Your task to perform on an android device: change keyboard looks Image 0: 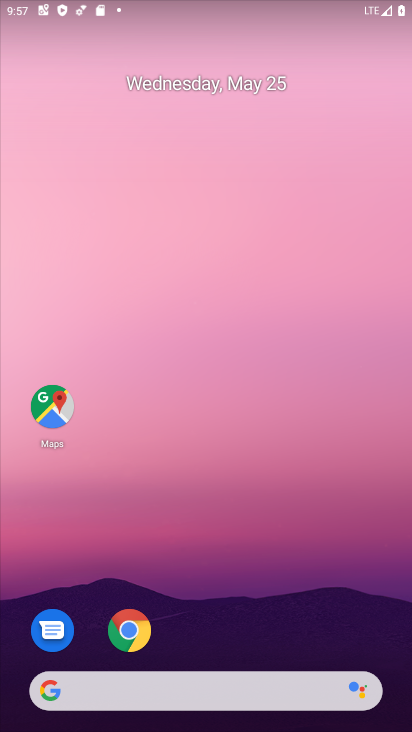
Step 0: drag from (185, 566) to (255, 169)
Your task to perform on an android device: change keyboard looks Image 1: 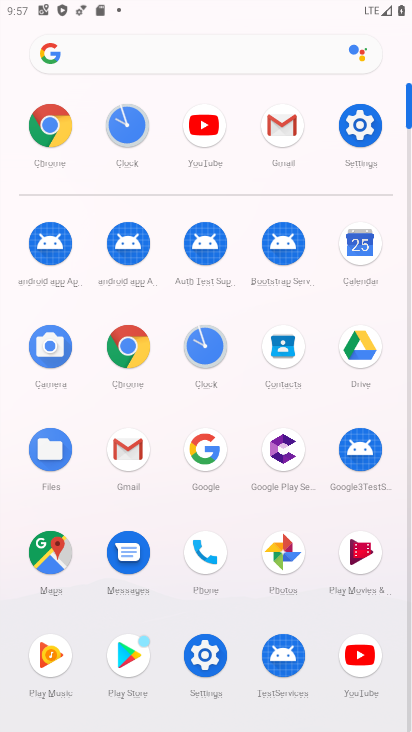
Step 1: click (353, 132)
Your task to perform on an android device: change keyboard looks Image 2: 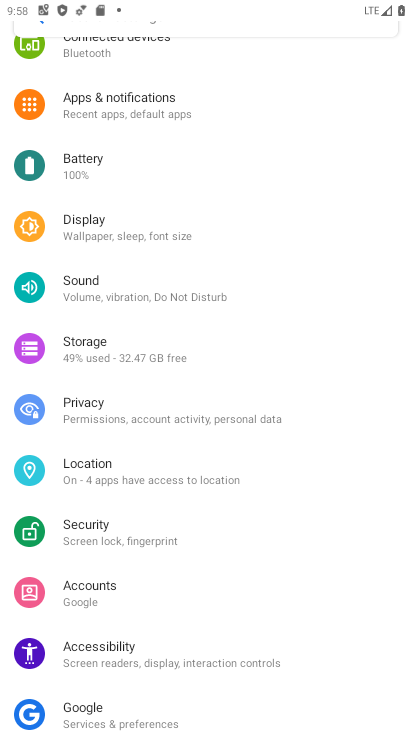
Step 2: drag from (150, 620) to (272, 58)
Your task to perform on an android device: change keyboard looks Image 3: 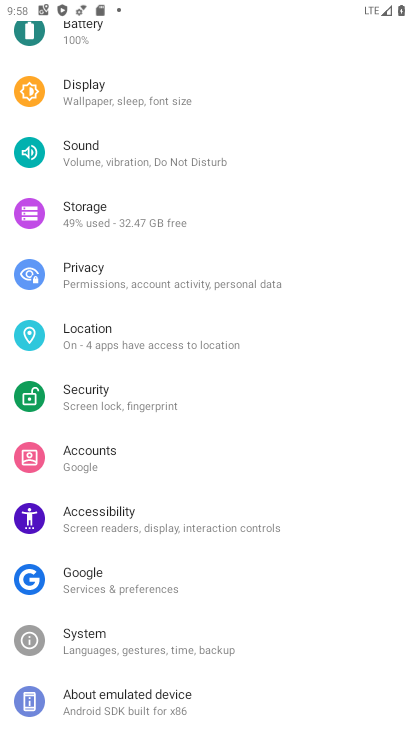
Step 3: click (110, 631)
Your task to perform on an android device: change keyboard looks Image 4: 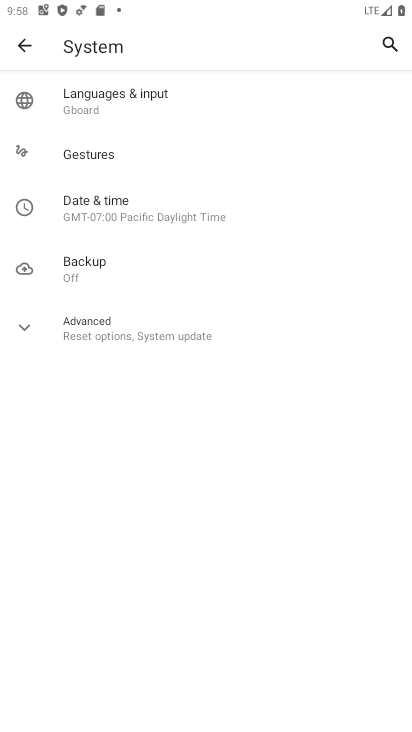
Step 4: click (118, 95)
Your task to perform on an android device: change keyboard looks Image 5: 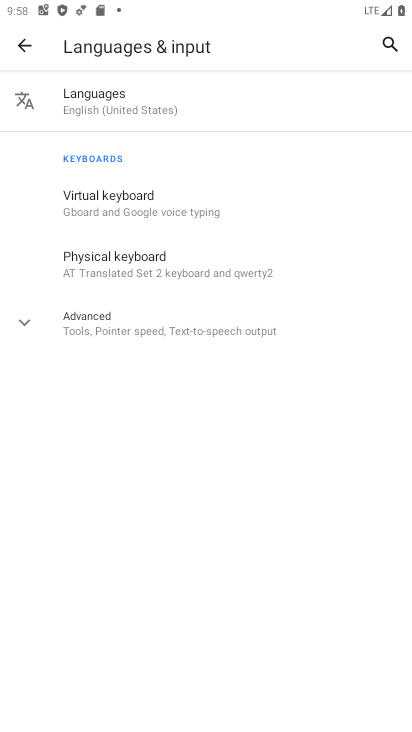
Step 5: click (99, 203)
Your task to perform on an android device: change keyboard looks Image 6: 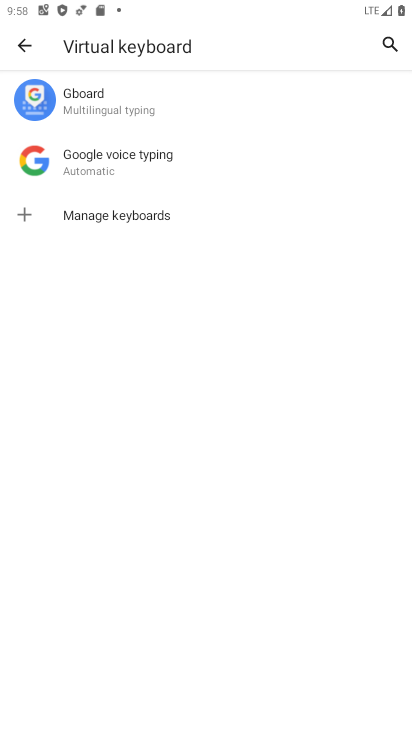
Step 6: click (108, 100)
Your task to perform on an android device: change keyboard looks Image 7: 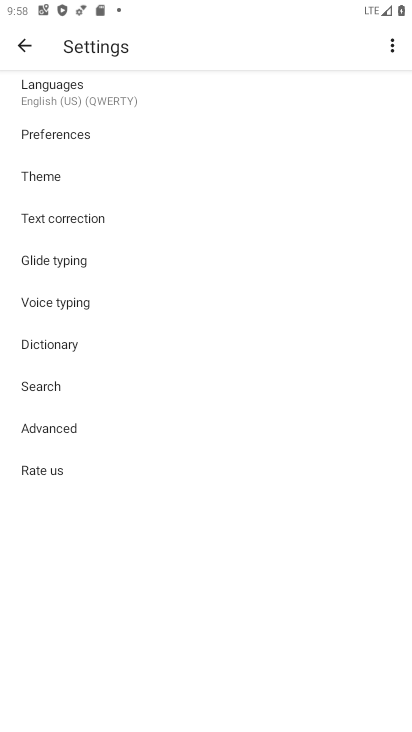
Step 7: click (47, 173)
Your task to perform on an android device: change keyboard looks Image 8: 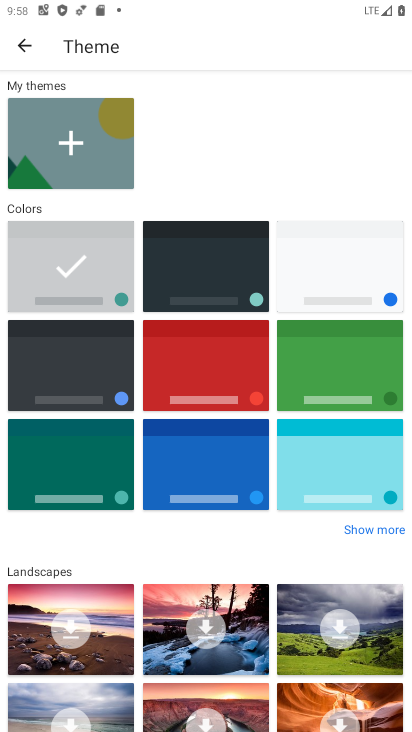
Step 8: click (340, 366)
Your task to perform on an android device: change keyboard looks Image 9: 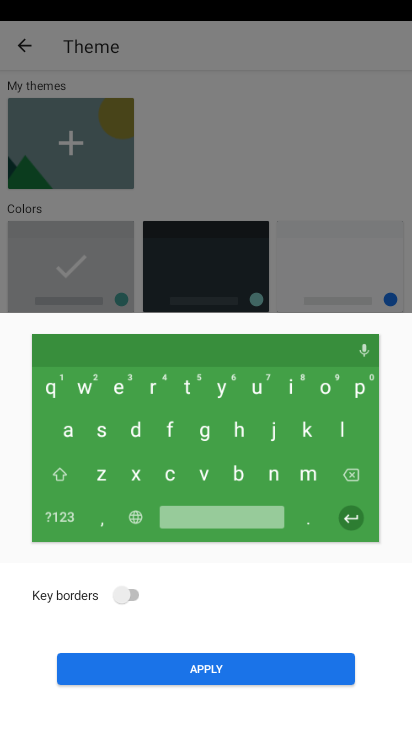
Step 9: click (212, 661)
Your task to perform on an android device: change keyboard looks Image 10: 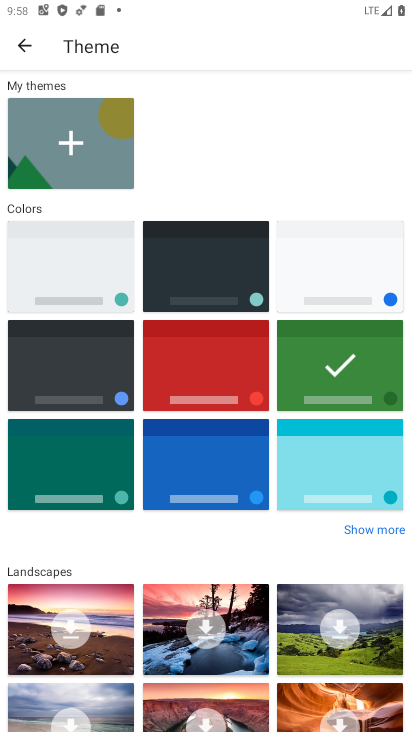
Step 10: task complete